Your task to perform on an android device: change the clock display to analog Image 0: 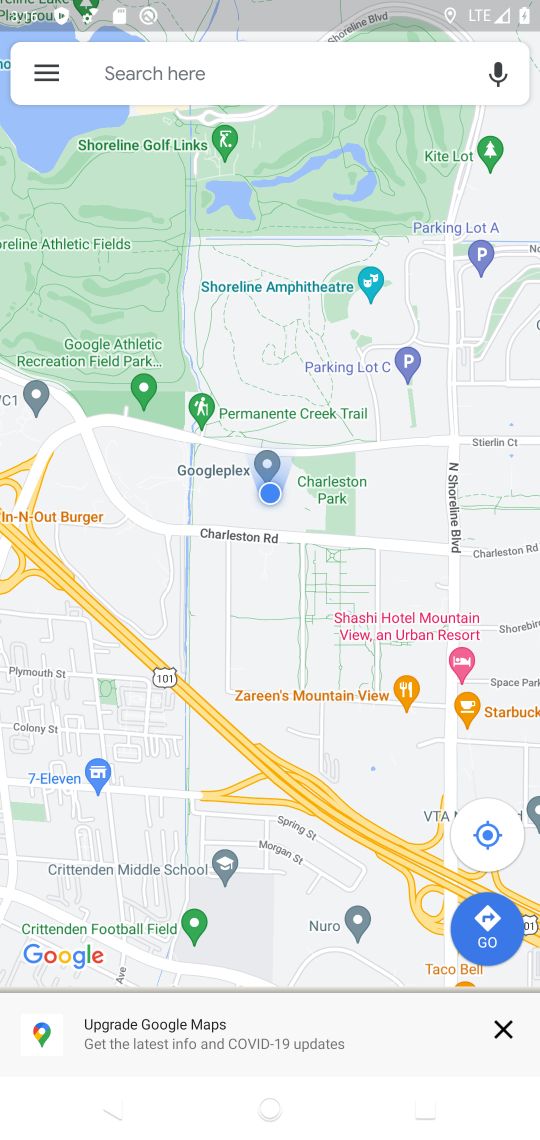
Step 0: drag from (516, 887) to (362, 217)
Your task to perform on an android device: change the clock display to analog Image 1: 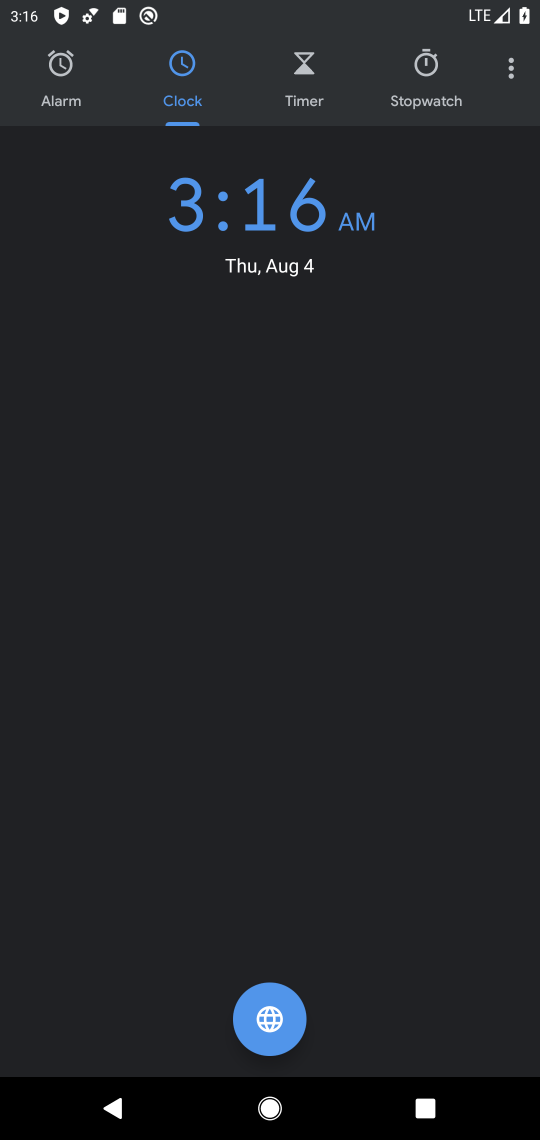
Step 1: click (518, 63)
Your task to perform on an android device: change the clock display to analog Image 2: 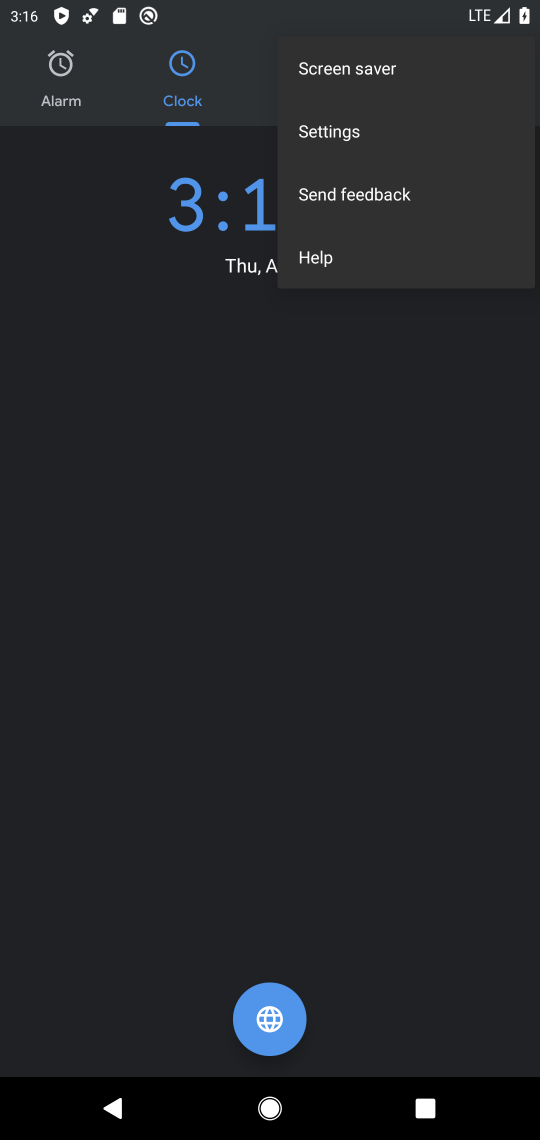
Step 2: click (417, 130)
Your task to perform on an android device: change the clock display to analog Image 3: 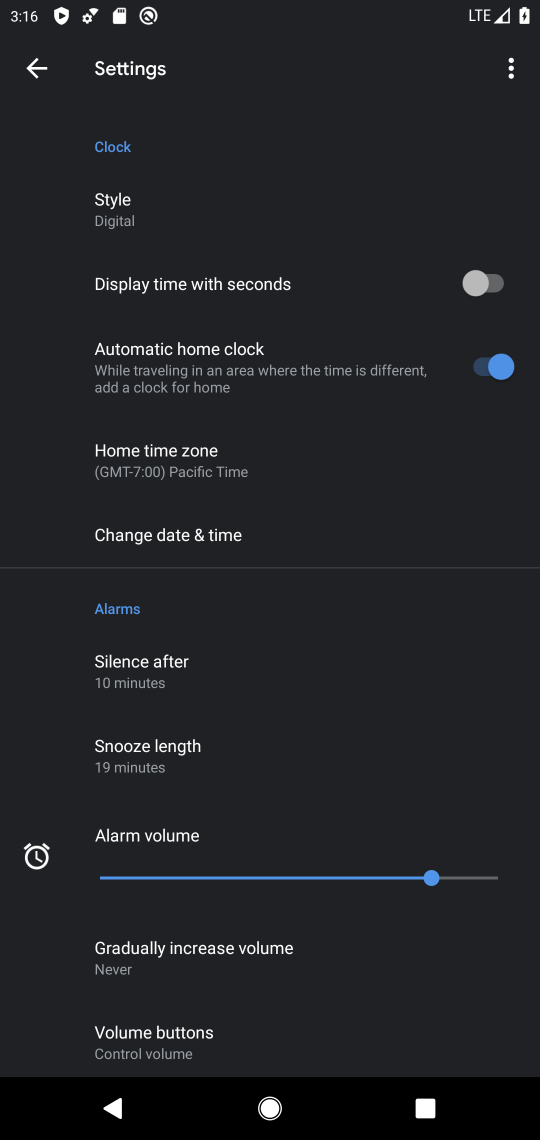
Step 3: click (293, 212)
Your task to perform on an android device: change the clock display to analog Image 4: 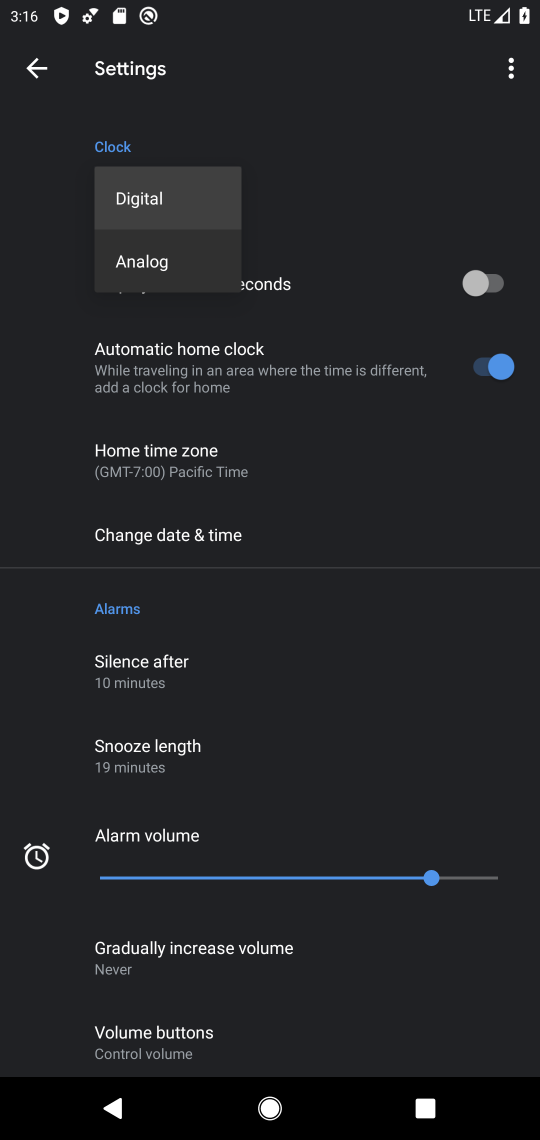
Step 4: click (224, 266)
Your task to perform on an android device: change the clock display to analog Image 5: 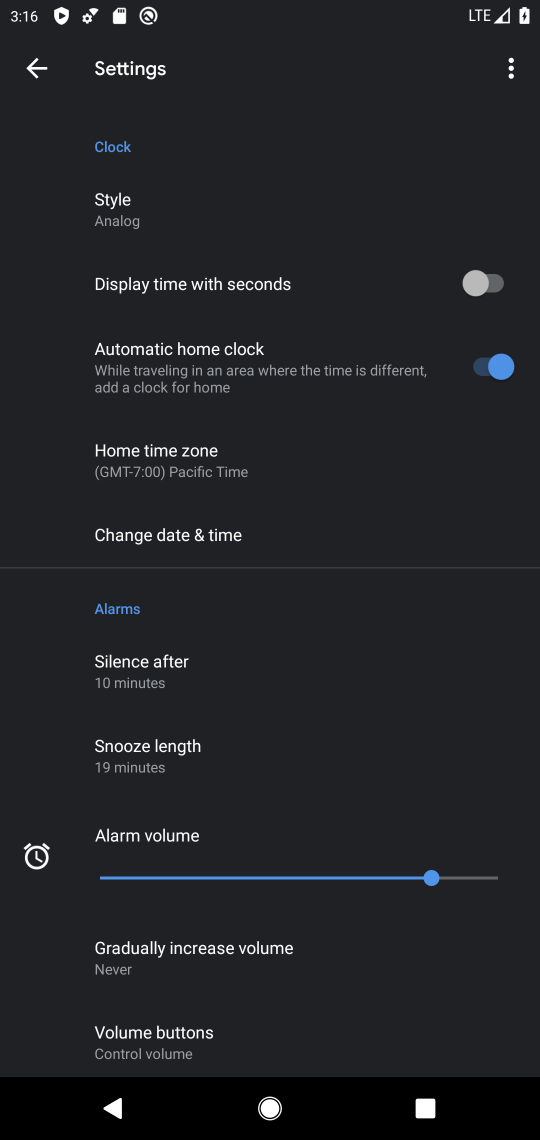
Step 5: task complete